Your task to perform on an android device: change notification settings in the gmail app Image 0: 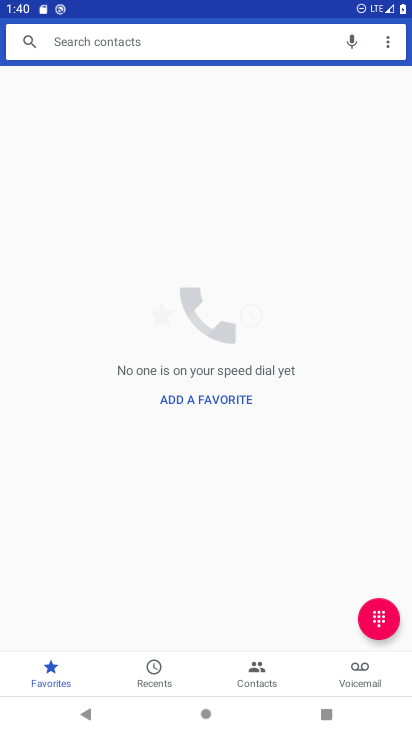
Step 0: press home button
Your task to perform on an android device: change notification settings in the gmail app Image 1: 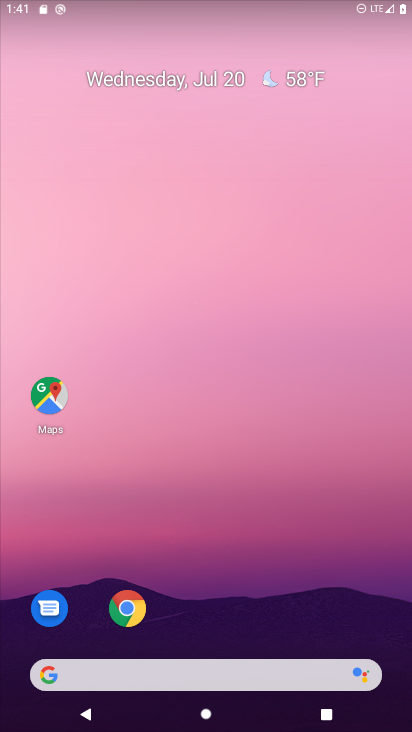
Step 1: drag from (228, 721) to (238, 174)
Your task to perform on an android device: change notification settings in the gmail app Image 2: 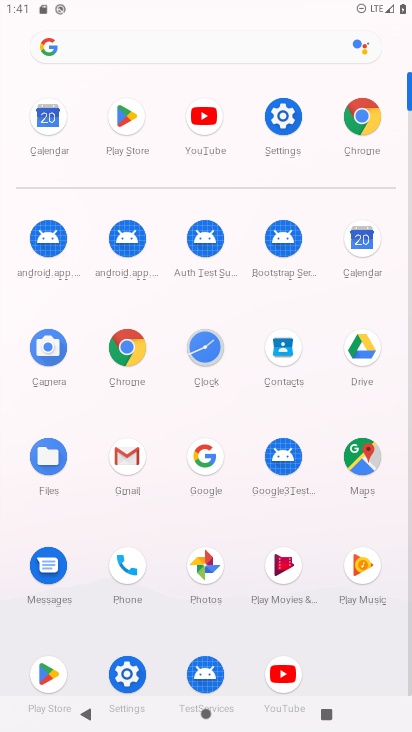
Step 2: click (124, 460)
Your task to perform on an android device: change notification settings in the gmail app Image 3: 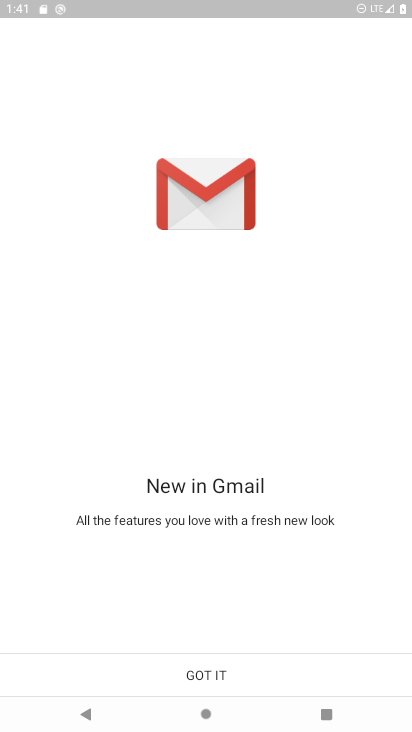
Step 3: click (226, 676)
Your task to perform on an android device: change notification settings in the gmail app Image 4: 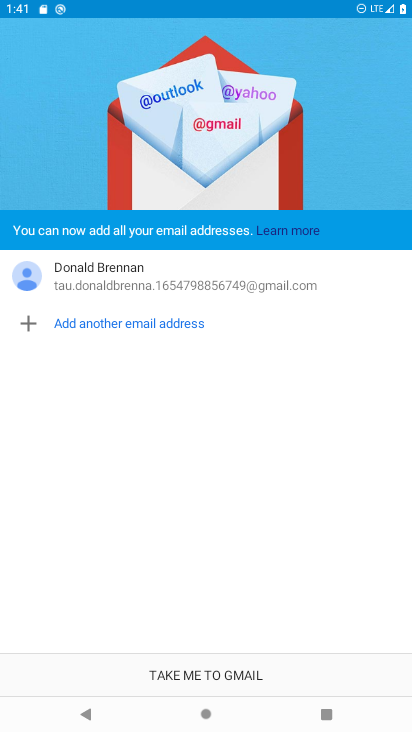
Step 4: click (225, 674)
Your task to perform on an android device: change notification settings in the gmail app Image 5: 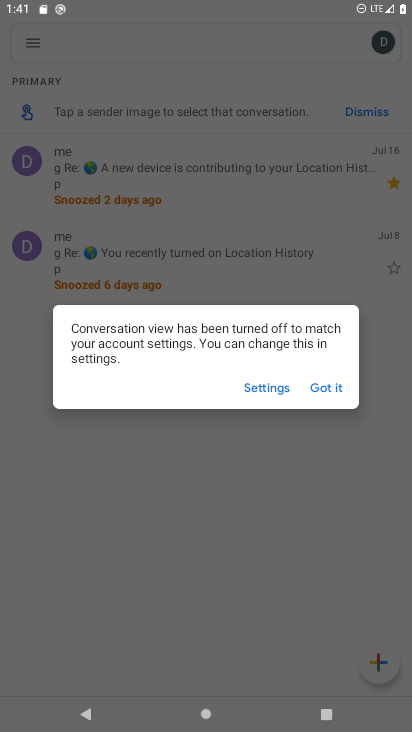
Step 5: click (330, 381)
Your task to perform on an android device: change notification settings in the gmail app Image 6: 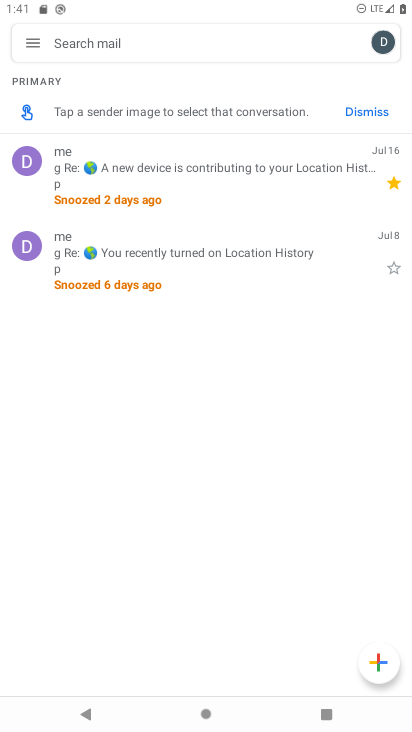
Step 6: click (26, 38)
Your task to perform on an android device: change notification settings in the gmail app Image 7: 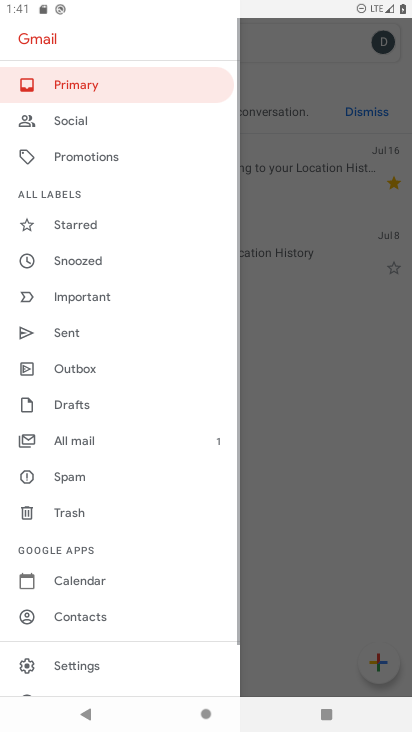
Step 7: click (60, 659)
Your task to perform on an android device: change notification settings in the gmail app Image 8: 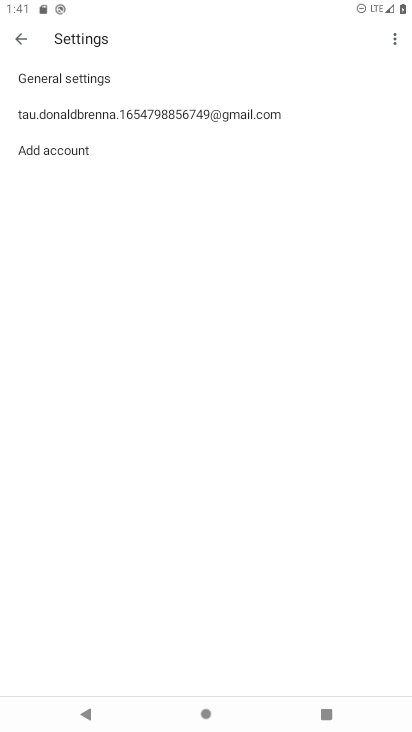
Step 8: click (157, 106)
Your task to perform on an android device: change notification settings in the gmail app Image 9: 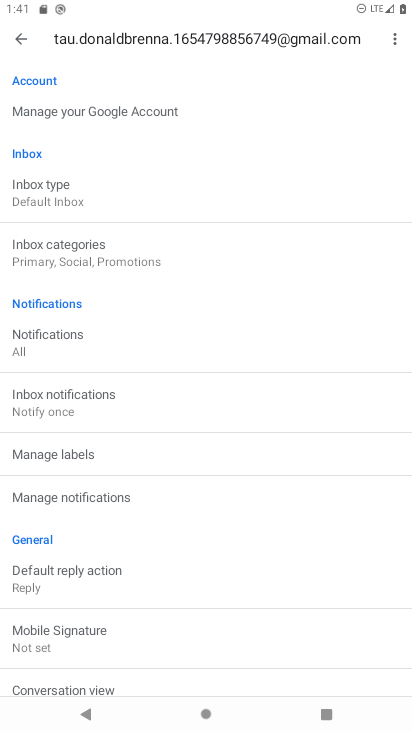
Step 9: click (55, 339)
Your task to perform on an android device: change notification settings in the gmail app Image 10: 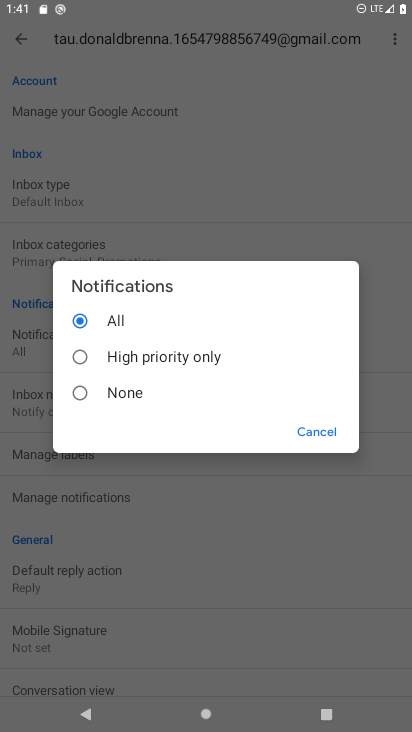
Step 10: click (78, 396)
Your task to perform on an android device: change notification settings in the gmail app Image 11: 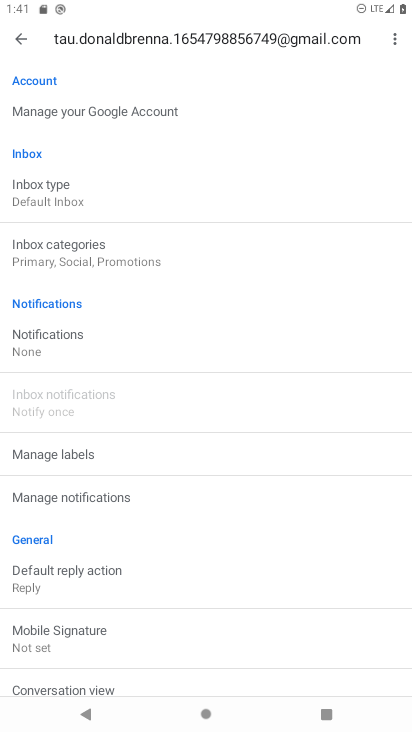
Step 11: task complete